Your task to perform on an android device: create a new album in the google photos Image 0: 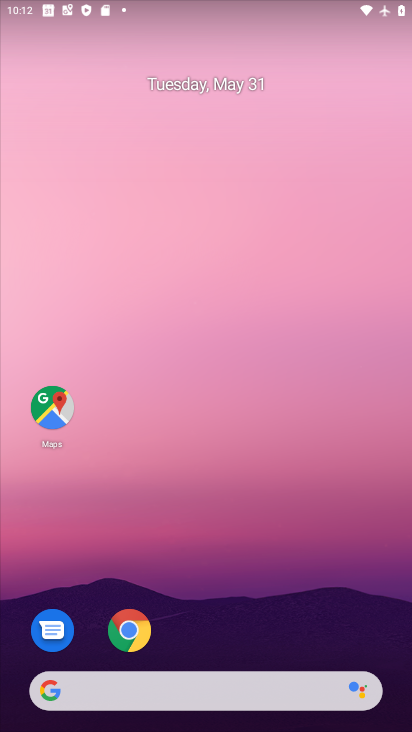
Step 0: drag from (257, 633) to (271, 186)
Your task to perform on an android device: create a new album in the google photos Image 1: 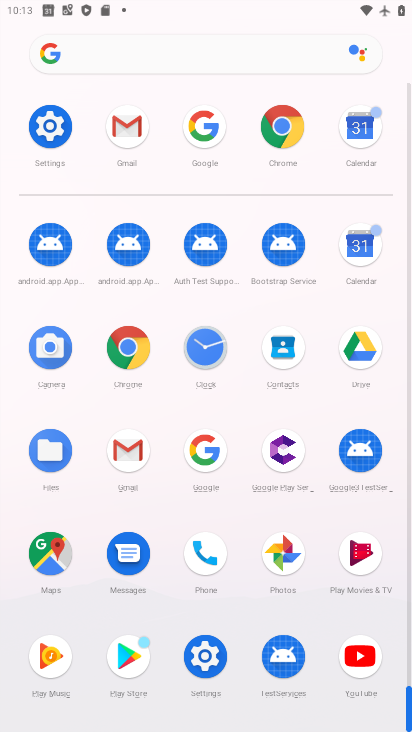
Step 1: click (274, 552)
Your task to perform on an android device: create a new album in the google photos Image 2: 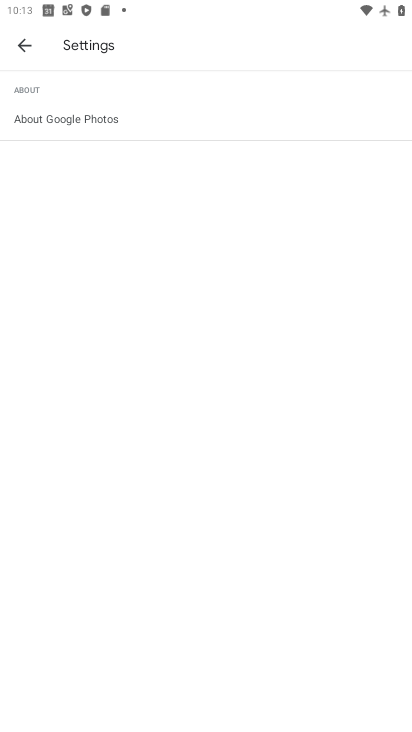
Step 2: press home button
Your task to perform on an android device: create a new album in the google photos Image 3: 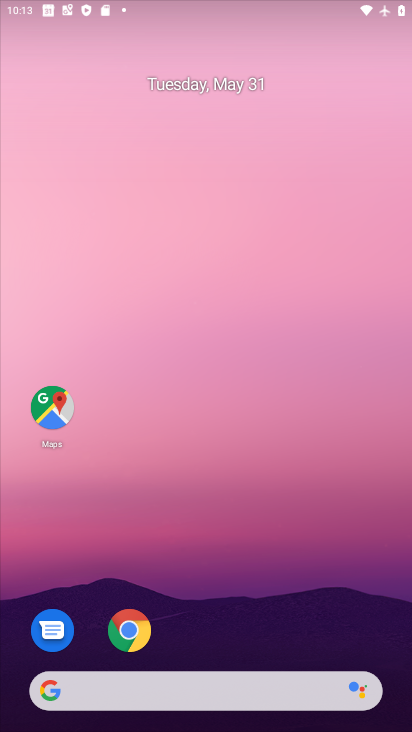
Step 3: drag from (226, 655) to (199, 231)
Your task to perform on an android device: create a new album in the google photos Image 4: 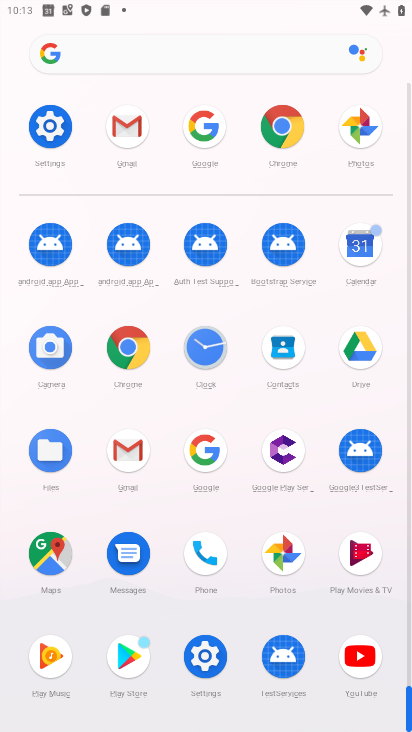
Step 4: click (278, 548)
Your task to perform on an android device: create a new album in the google photos Image 5: 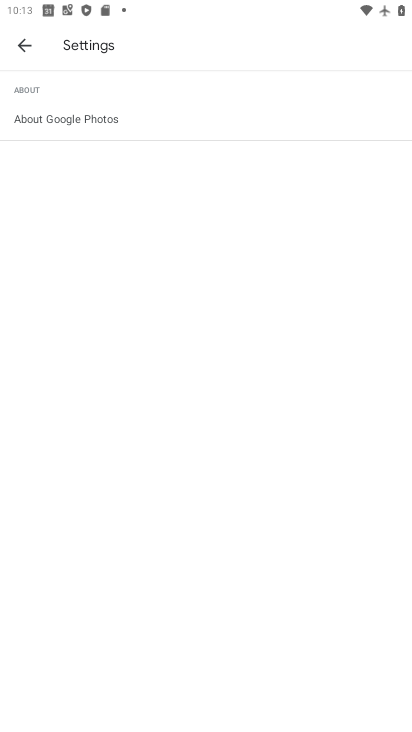
Step 5: click (13, 19)
Your task to perform on an android device: create a new album in the google photos Image 6: 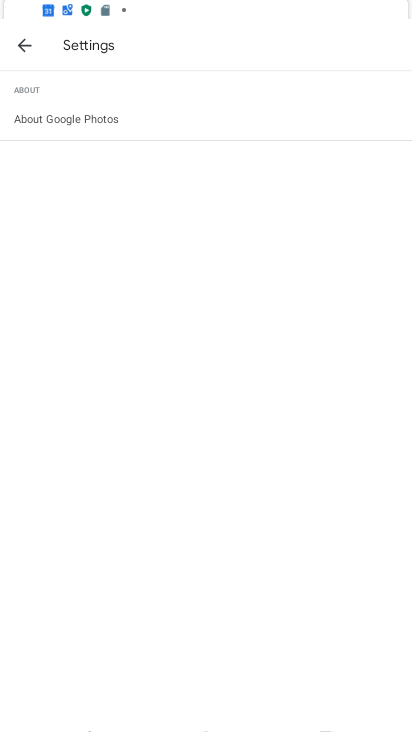
Step 6: click (15, 63)
Your task to perform on an android device: create a new album in the google photos Image 7: 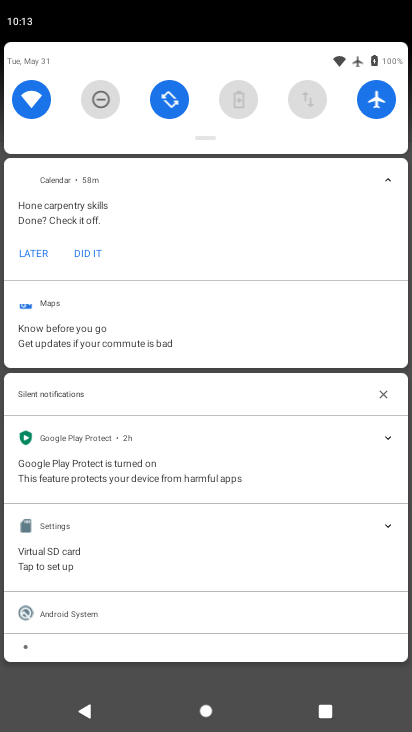
Step 7: drag from (150, 674) to (150, 287)
Your task to perform on an android device: create a new album in the google photos Image 8: 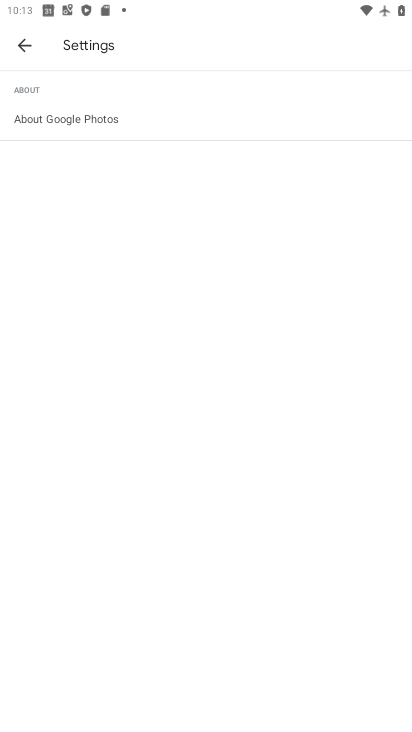
Step 8: click (20, 47)
Your task to perform on an android device: create a new album in the google photos Image 9: 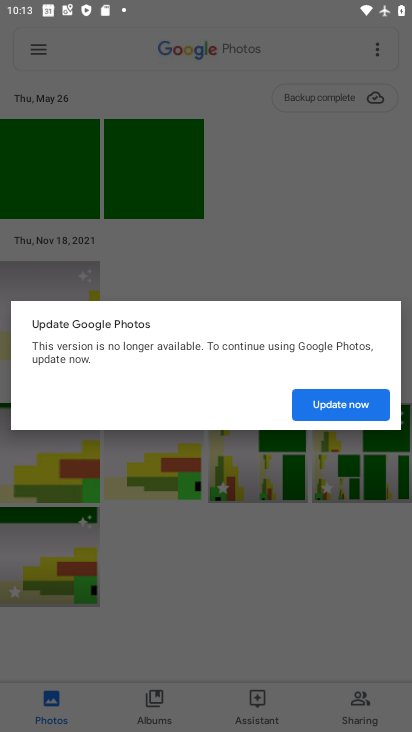
Step 9: click (323, 397)
Your task to perform on an android device: create a new album in the google photos Image 10: 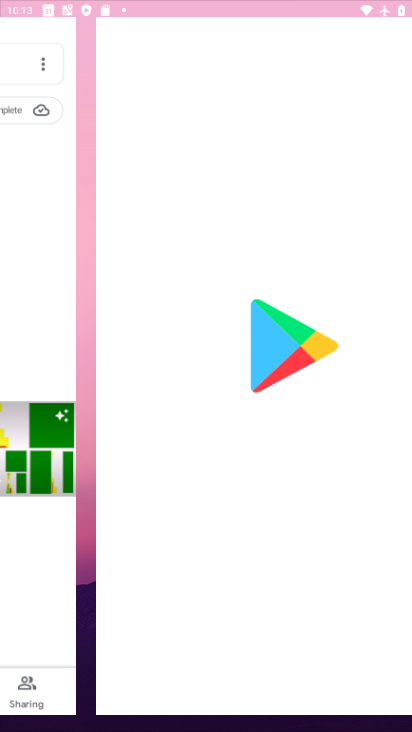
Step 10: press back button
Your task to perform on an android device: create a new album in the google photos Image 11: 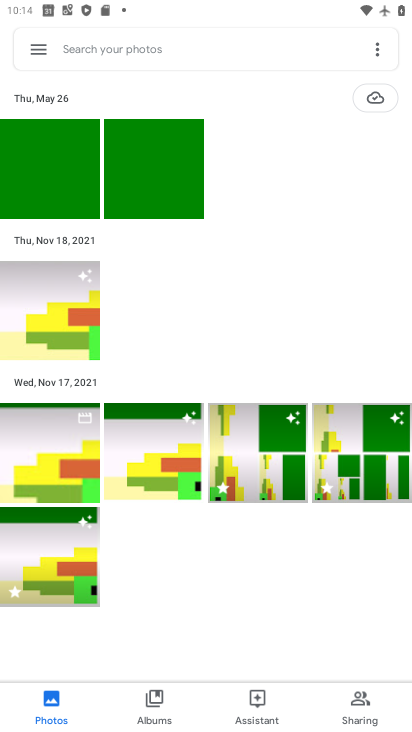
Step 11: click (62, 431)
Your task to perform on an android device: create a new album in the google photos Image 12: 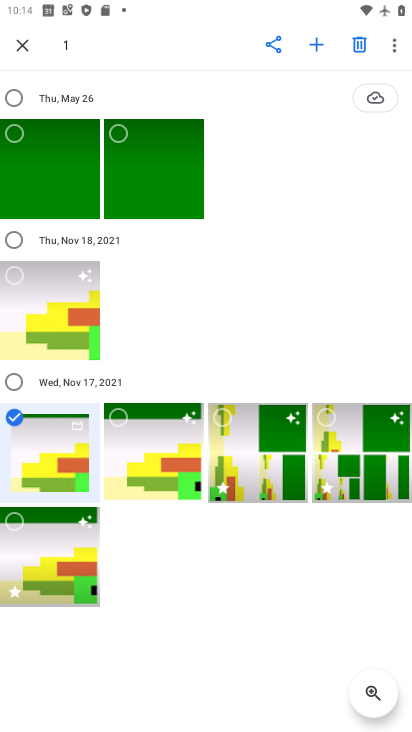
Step 12: click (307, 37)
Your task to perform on an android device: create a new album in the google photos Image 13: 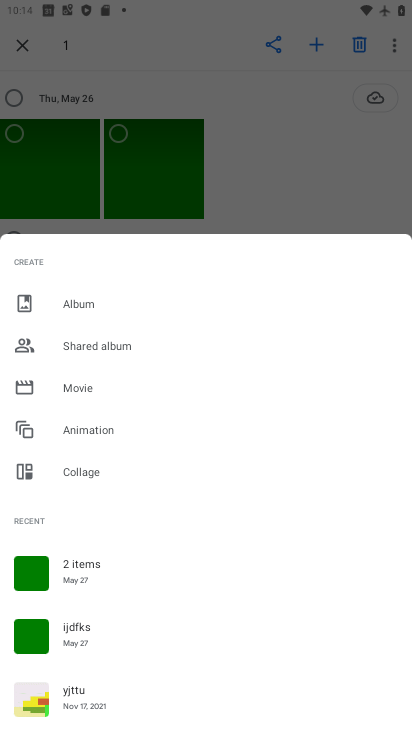
Step 13: click (90, 301)
Your task to perform on an android device: create a new album in the google photos Image 14: 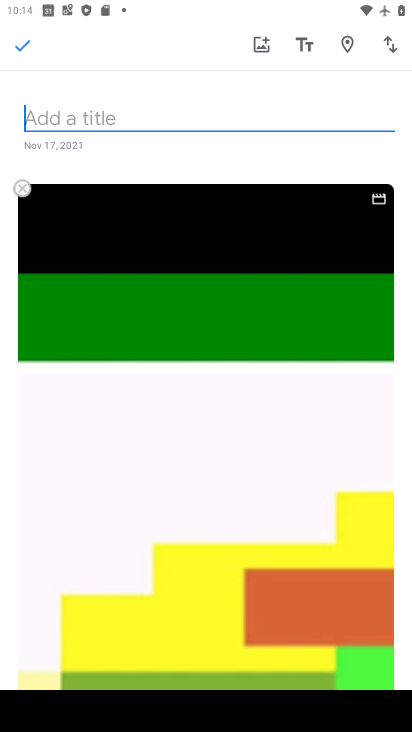
Step 14: click (157, 116)
Your task to perform on an android device: create a new album in the google photos Image 15: 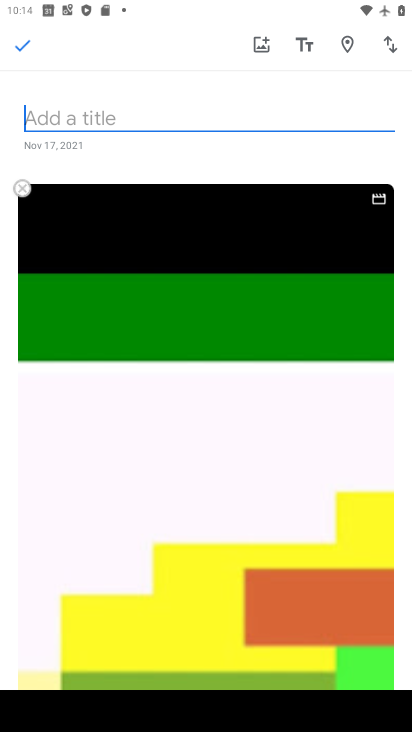
Step 15: type "asdfghjk"
Your task to perform on an android device: create a new album in the google photos Image 16: 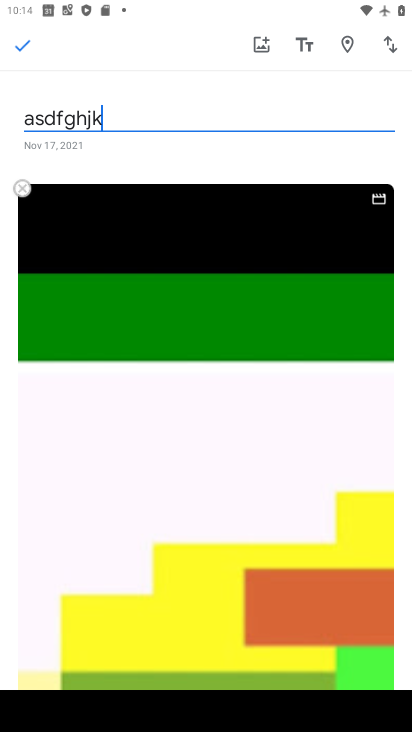
Step 16: click (31, 44)
Your task to perform on an android device: create a new album in the google photos Image 17: 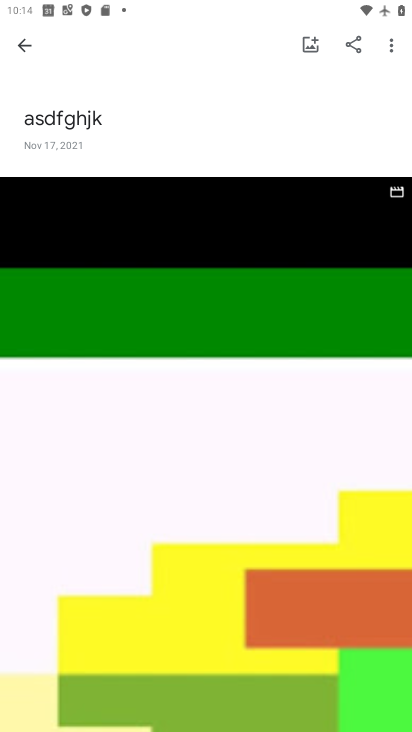
Step 17: task complete